Your task to perform on an android device: Go to Wikipedia Image 0: 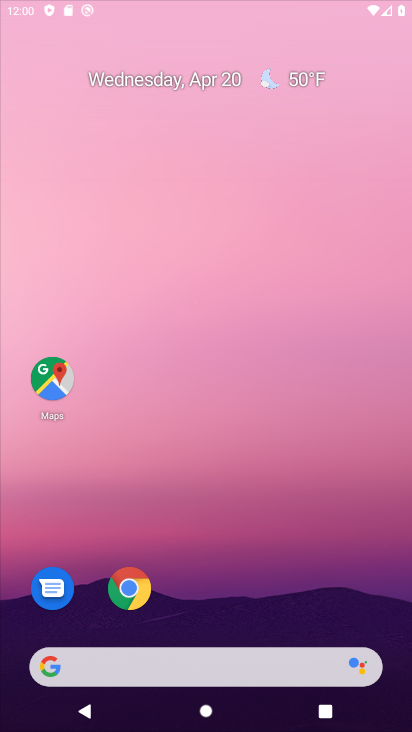
Step 0: click (243, 78)
Your task to perform on an android device: Go to Wikipedia Image 1: 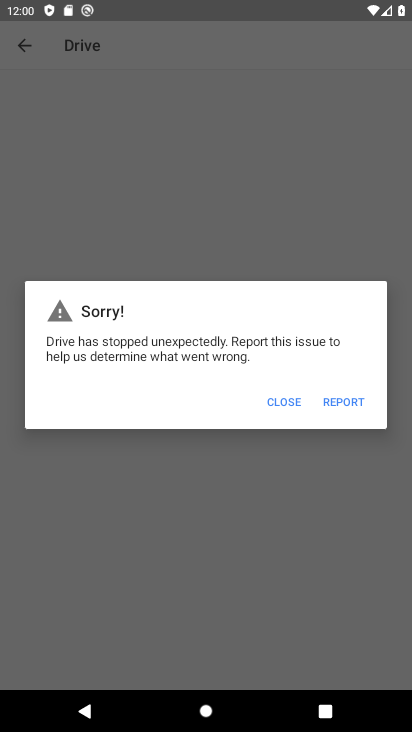
Step 1: press home button
Your task to perform on an android device: Go to Wikipedia Image 2: 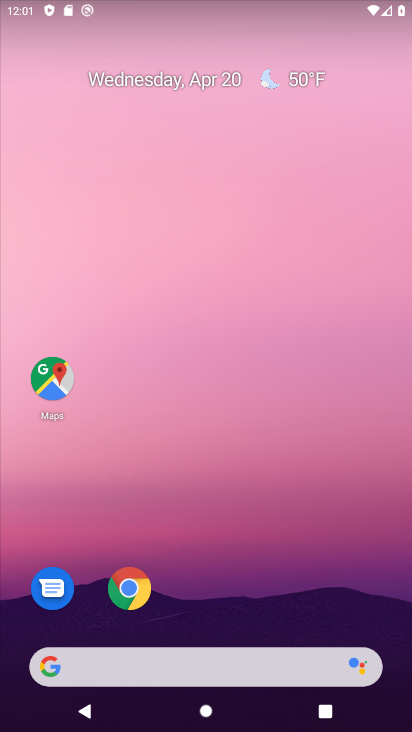
Step 2: click (125, 584)
Your task to perform on an android device: Go to Wikipedia Image 3: 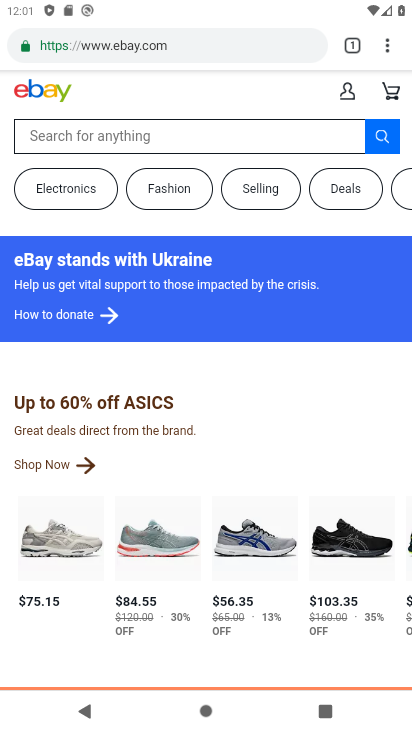
Step 3: click (352, 41)
Your task to perform on an android device: Go to Wikipedia Image 4: 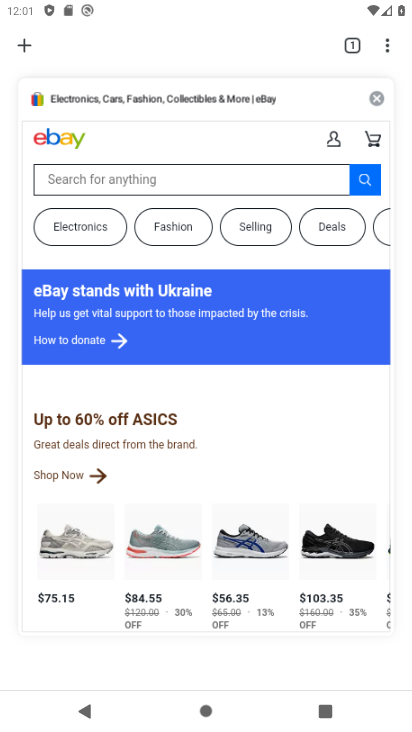
Step 4: click (27, 40)
Your task to perform on an android device: Go to Wikipedia Image 5: 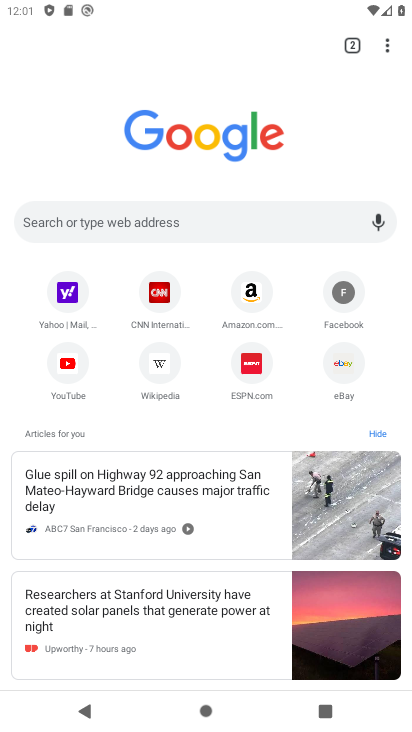
Step 5: click (156, 359)
Your task to perform on an android device: Go to Wikipedia Image 6: 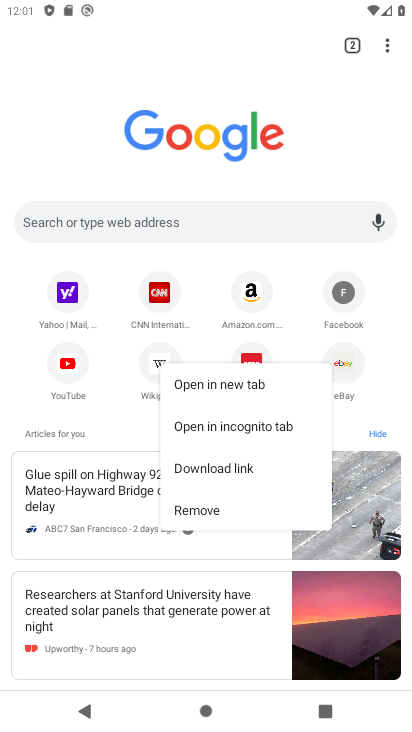
Step 6: click (148, 365)
Your task to perform on an android device: Go to Wikipedia Image 7: 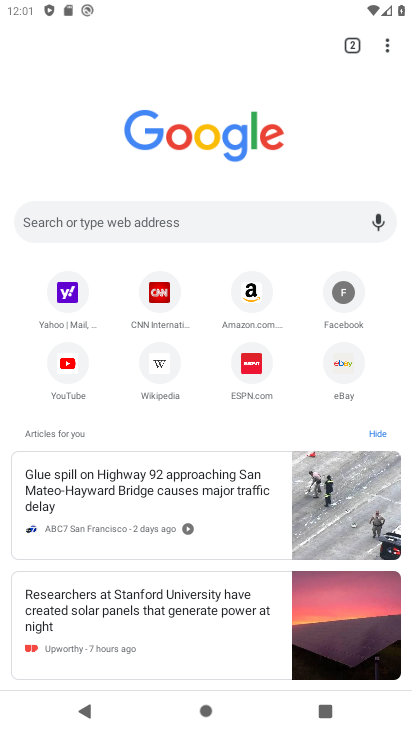
Step 7: click (158, 369)
Your task to perform on an android device: Go to Wikipedia Image 8: 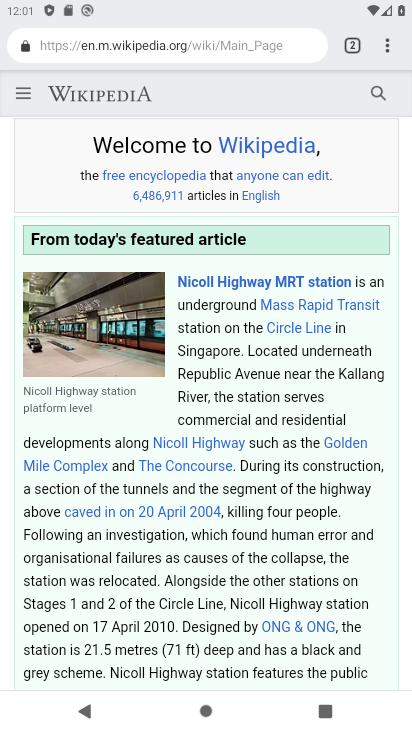
Step 8: task complete